Your task to perform on an android device: turn smart compose on in the gmail app Image 0: 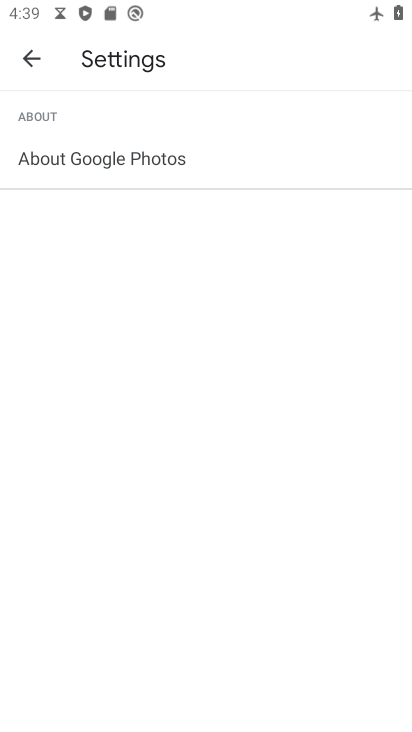
Step 0: press home button
Your task to perform on an android device: turn smart compose on in the gmail app Image 1: 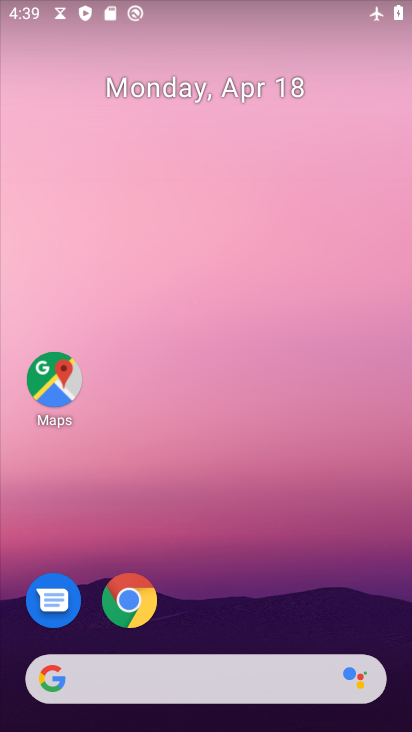
Step 1: drag from (230, 631) to (264, 0)
Your task to perform on an android device: turn smart compose on in the gmail app Image 2: 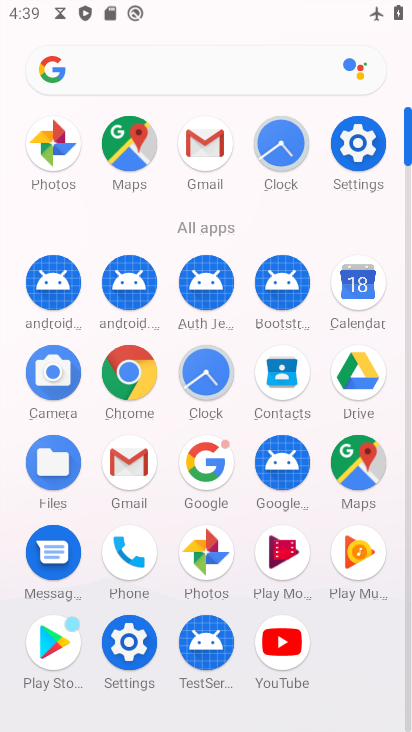
Step 2: click (135, 475)
Your task to perform on an android device: turn smart compose on in the gmail app Image 3: 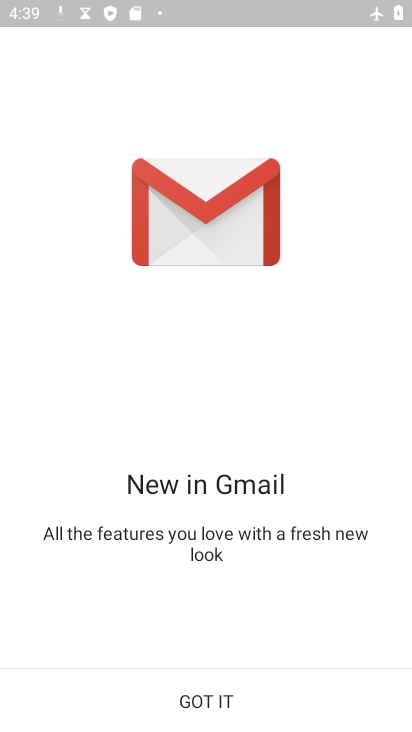
Step 3: click (216, 697)
Your task to perform on an android device: turn smart compose on in the gmail app Image 4: 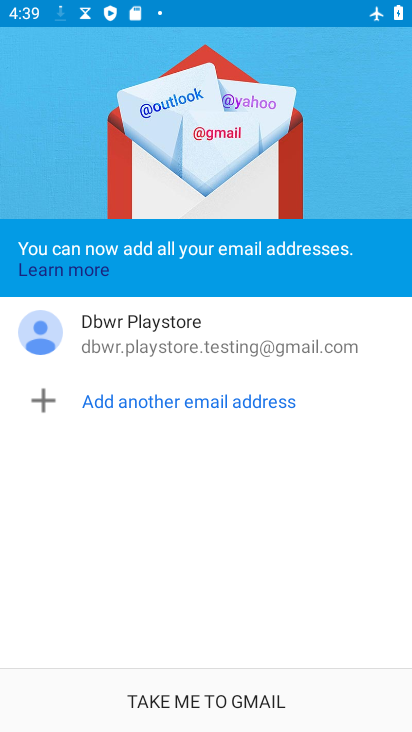
Step 4: click (219, 690)
Your task to perform on an android device: turn smart compose on in the gmail app Image 5: 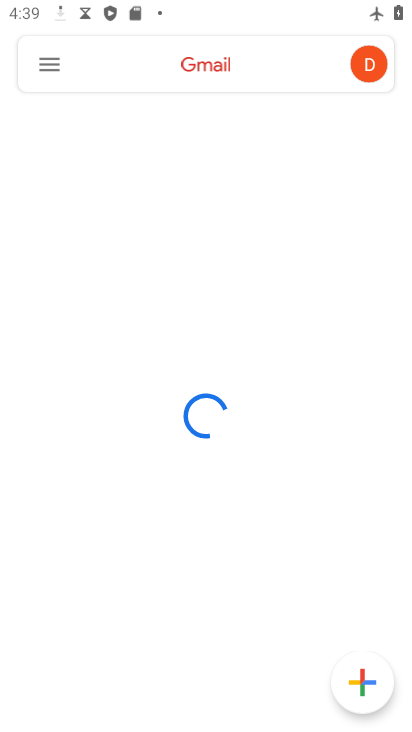
Step 5: click (53, 66)
Your task to perform on an android device: turn smart compose on in the gmail app Image 6: 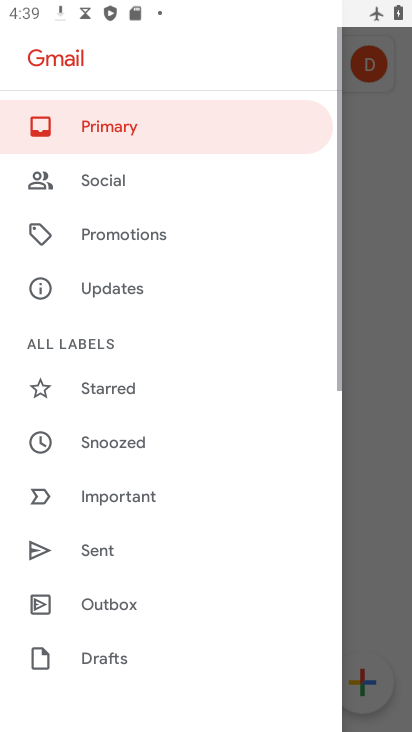
Step 6: click (108, 294)
Your task to perform on an android device: turn smart compose on in the gmail app Image 7: 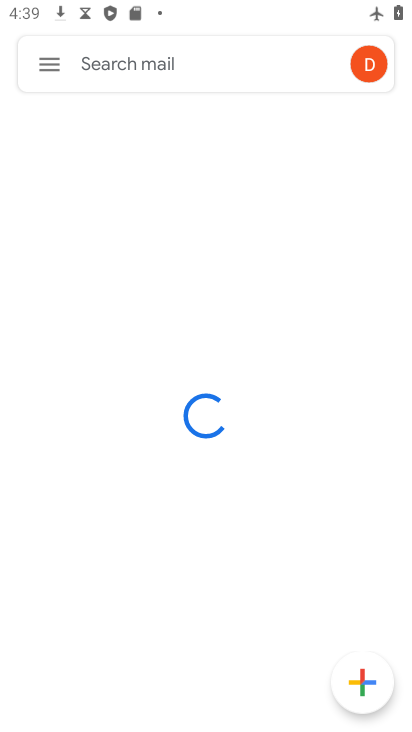
Step 7: click (46, 62)
Your task to perform on an android device: turn smart compose on in the gmail app Image 8: 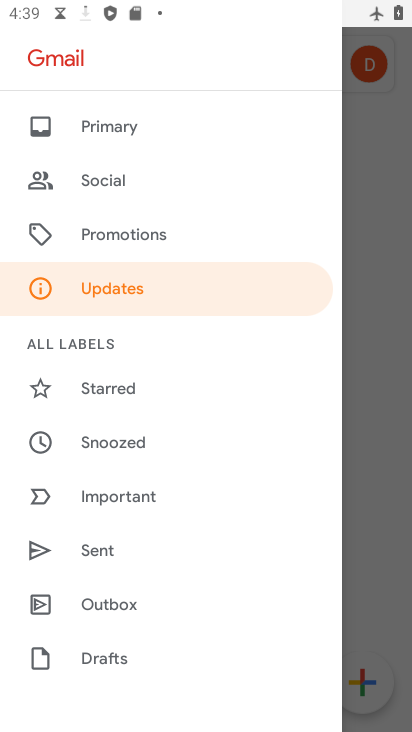
Step 8: drag from (159, 653) to (289, 10)
Your task to perform on an android device: turn smart compose on in the gmail app Image 9: 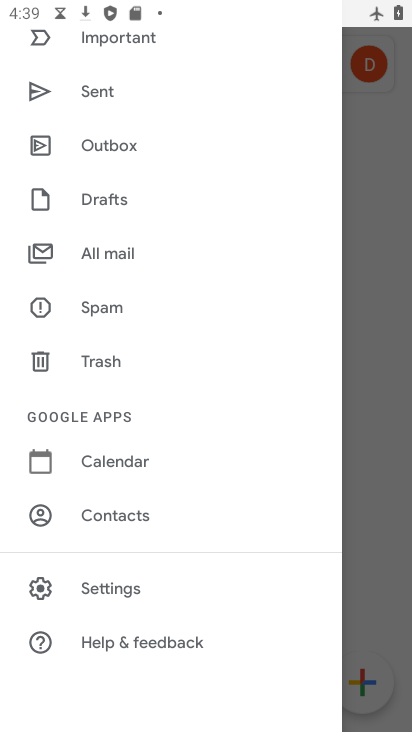
Step 9: click (107, 595)
Your task to perform on an android device: turn smart compose on in the gmail app Image 10: 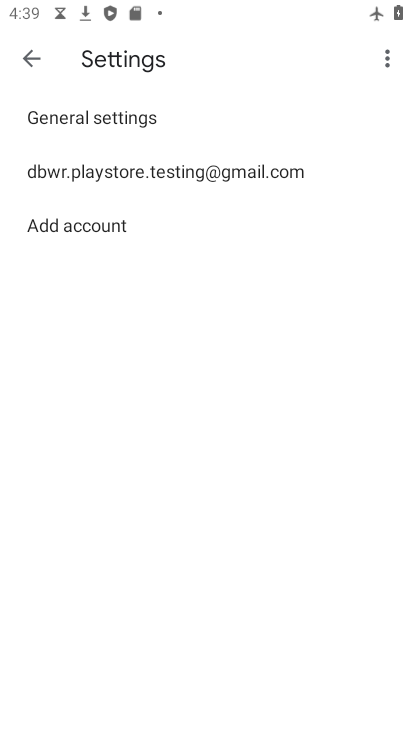
Step 10: click (136, 178)
Your task to perform on an android device: turn smart compose on in the gmail app Image 11: 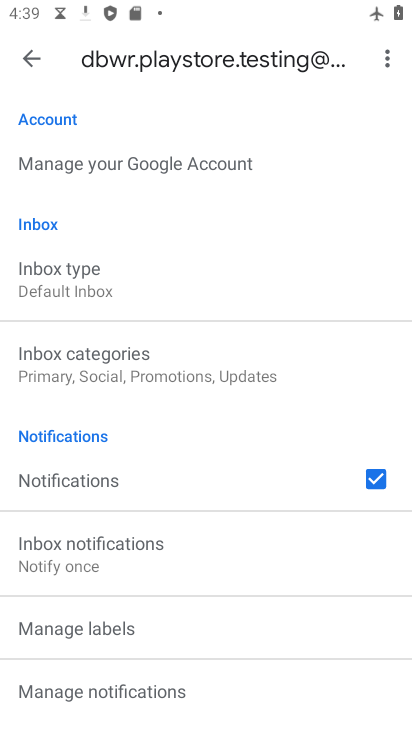
Step 11: task complete